Your task to perform on an android device: turn off smart reply in the gmail app Image 0: 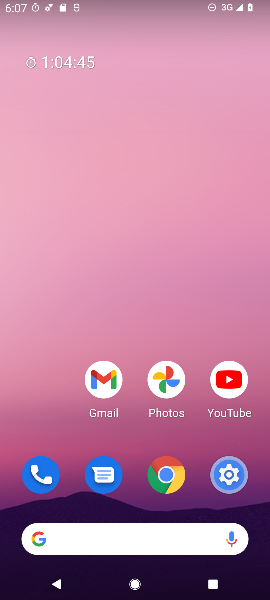
Step 0: press home button
Your task to perform on an android device: turn off smart reply in the gmail app Image 1: 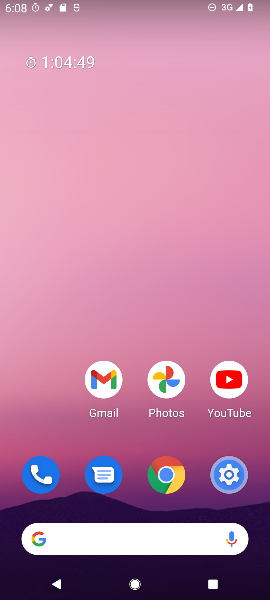
Step 1: drag from (58, 441) to (54, 193)
Your task to perform on an android device: turn off smart reply in the gmail app Image 2: 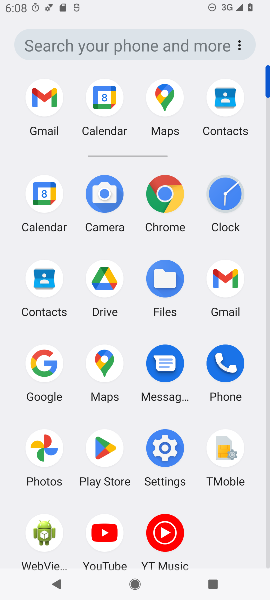
Step 2: click (223, 280)
Your task to perform on an android device: turn off smart reply in the gmail app Image 3: 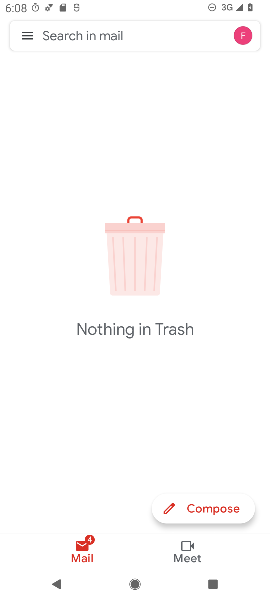
Step 3: click (26, 32)
Your task to perform on an android device: turn off smart reply in the gmail app Image 4: 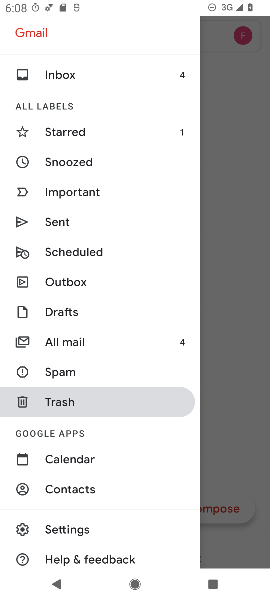
Step 4: click (71, 531)
Your task to perform on an android device: turn off smart reply in the gmail app Image 5: 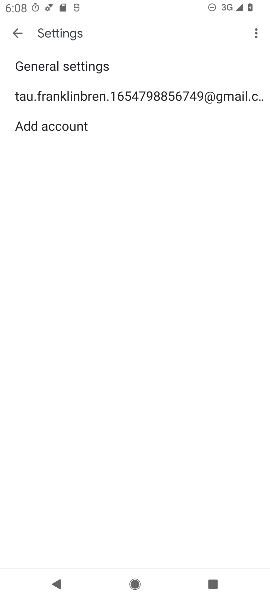
Step 5: click (124, 96)
Your task to perform on an android device: turn off smart reply in the gmail app Image 6: 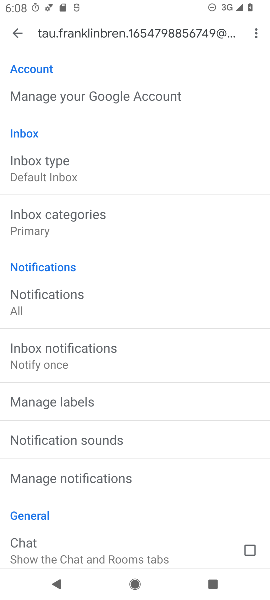
Step 6: task complete